Your task to perform on an android device: set default search engine in the chrome app Image 0: 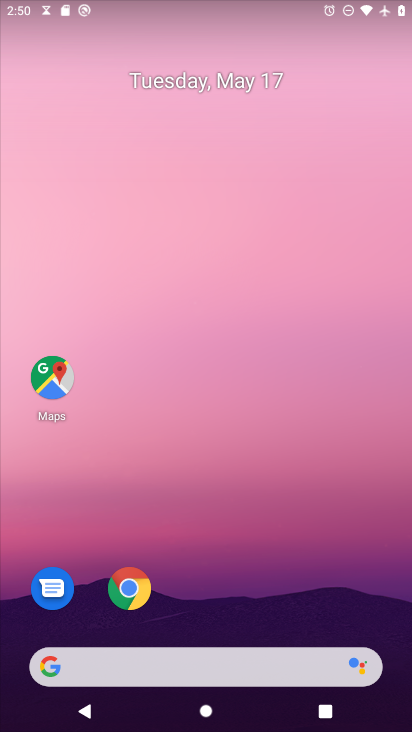
Step 0: click (120, 585)
Your task to perform on an android device: set default search engine in the chrome app Image 1: 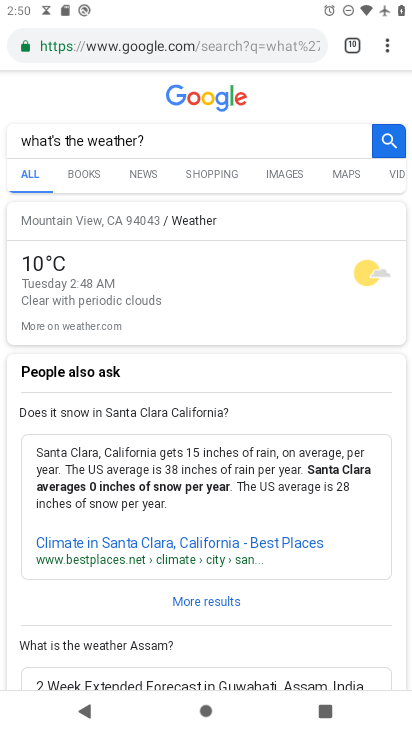
Step 1: click (385, 45)
Your task to perform on an android device: set default search engine in the chrome app Image 2: 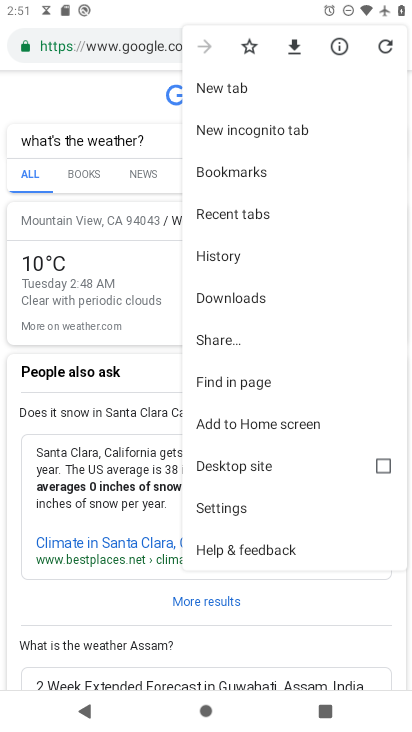
Step 2: click (218, 499)
Your task to perform on an android device: set default search engine in the chrome app Image 3: 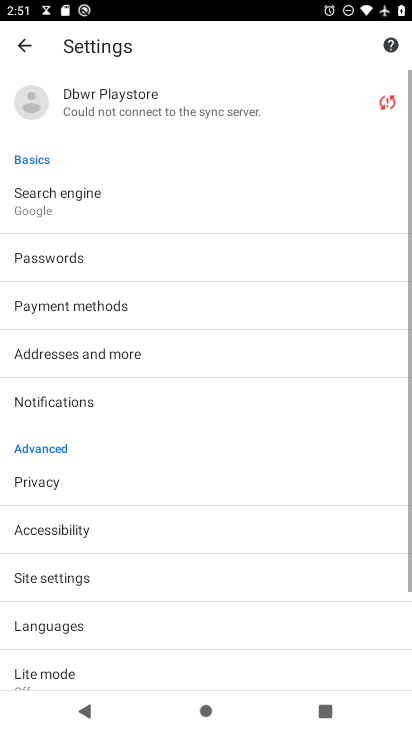
Step 3: click (72, 209)
Your task to perform on an android device: set default search engine in the chrome app Image 4: 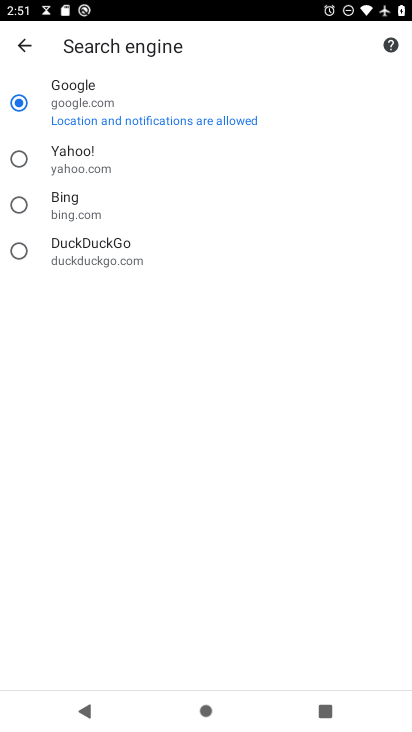
Step 4: click (86, 263)
Your task to perform on an android device: set default search engine in the chrome app Image 5: 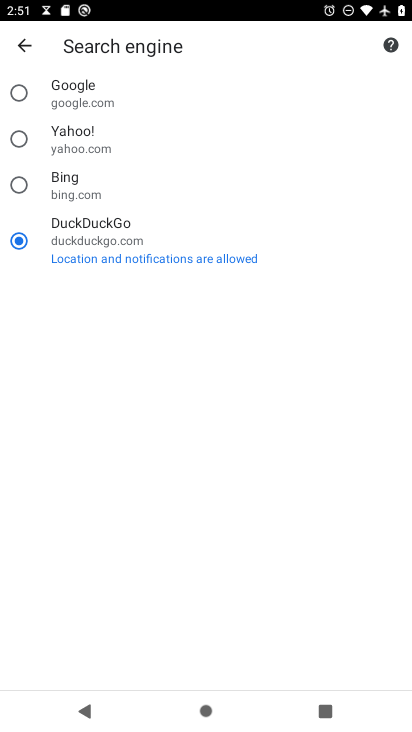
Step 5: click (61, 196)
Your task to perform on an android device: set default search engine in the chrome app Image 6: 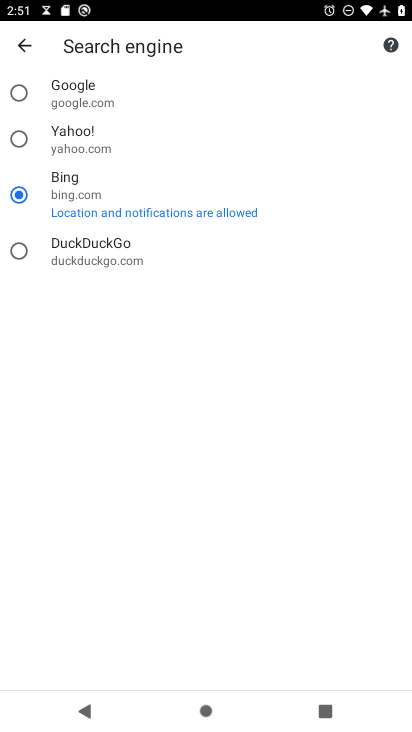
Step 6: task complete